Your task to perform on an android device: turn on priority inbox in the gmail app Image 0: 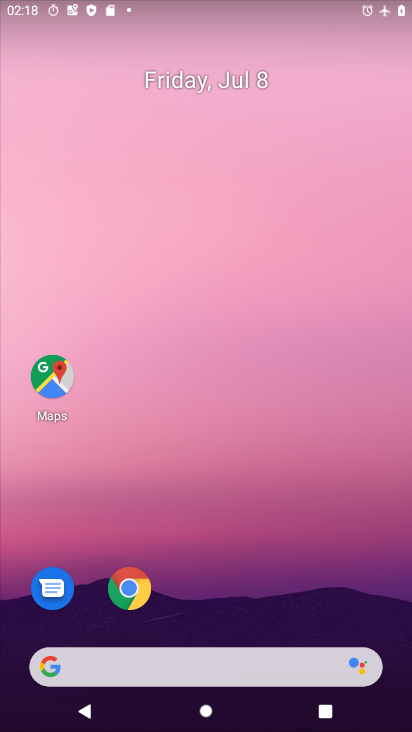
Step 0: drag from (224, 571) to (235, 179)
Your task to perform on an android device: turn on priority inbox in the gmail app Image 1: 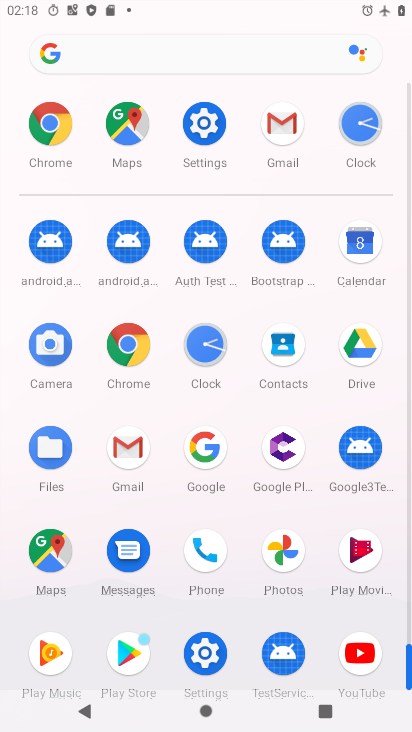
Step 1: click (269, 139)
Your task to perform on an android device: turn on priority inbox in the gmail app Image 2: 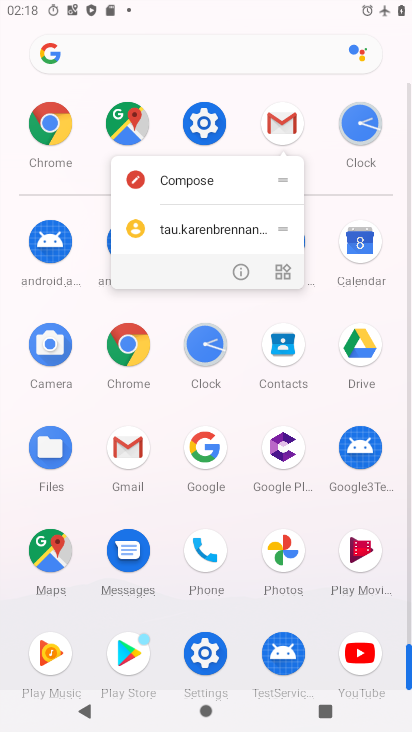
Step 2: click (235, 275)
Your task to perform on an android device: turn on priority inbox in the gmail app Image 3: 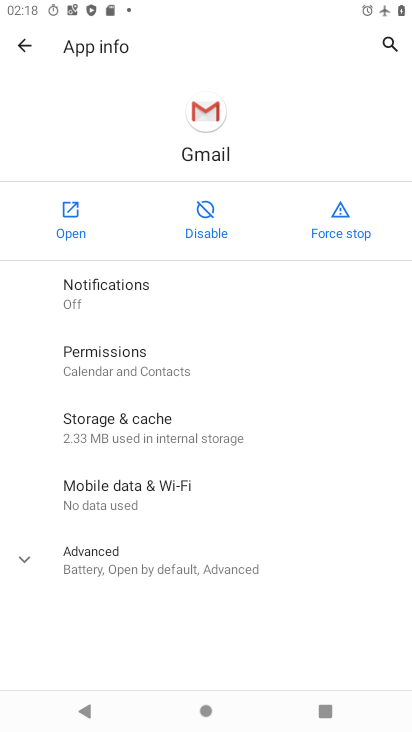
Step 3: click (60, 208)
Your task to perform on an android device: turn on priority inbox in the gmail app Image 4: 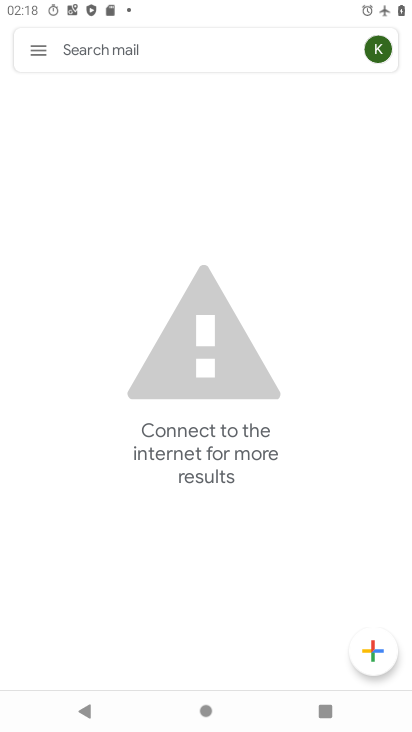
Step 4: click (14, 37)
Your task to perform on an android device: turn on priority inbox in the gmail app Image 5: 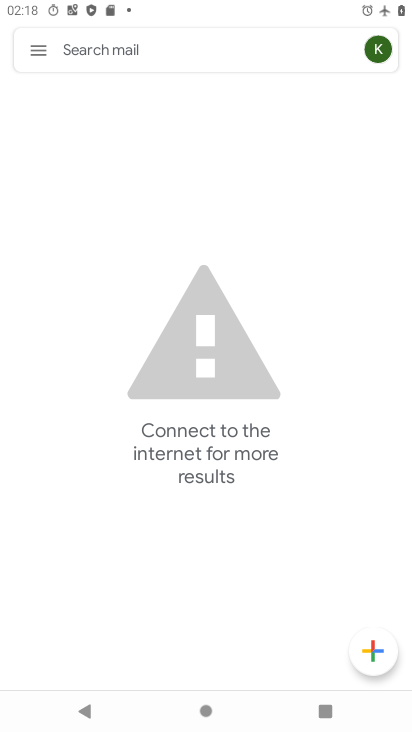
Step 5: click (35, 46)
Your task to perform on an android device: turn on priority inbox in the gmail app Image 6: 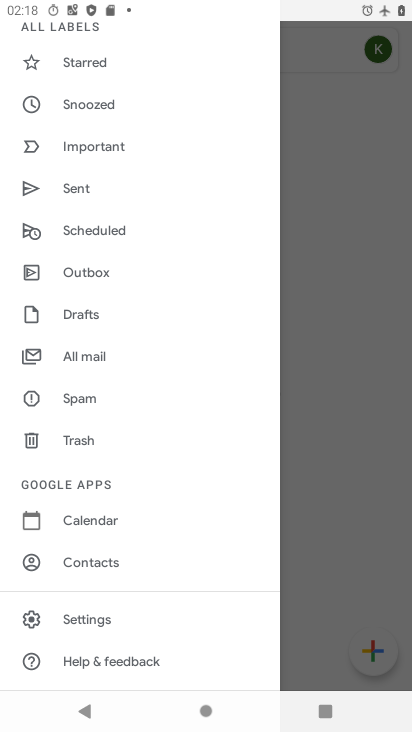
Step 6: click (99, 618)
Your task to perform on an android device: turn on priority inbox in the gmail app Image 7: 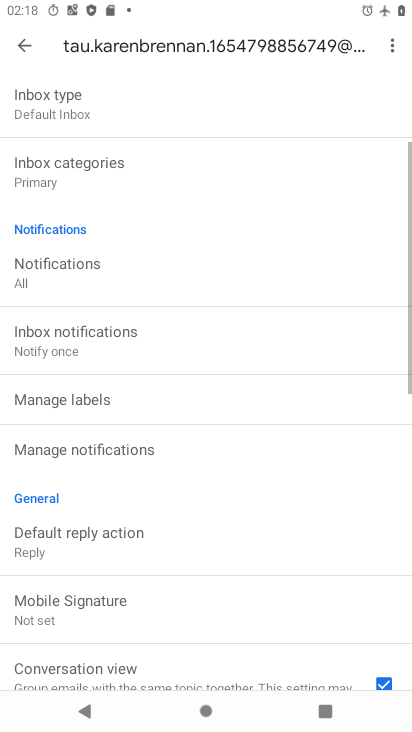
Step 7: drag from (118, 585) to (185, 399)
Your task to perform on an android device: turn on priority inbox in the gmail app Image 8: 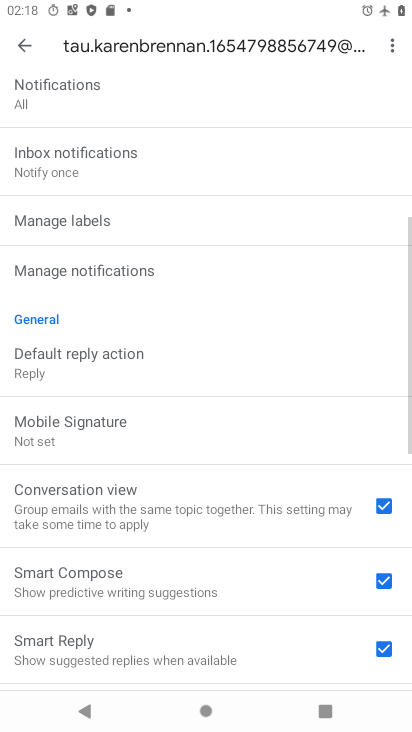
Step 8: drag from (179, 395) to (112, 635)
Your task to perform on an android device: turn on priority inbox in the gmail app Image 9: 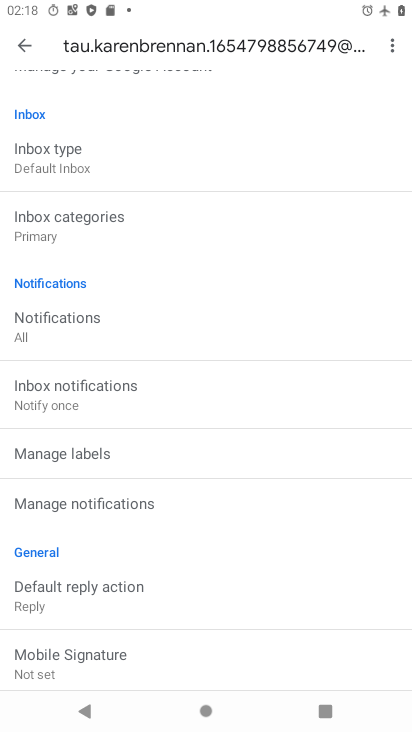
Step 9: click (62, 165)
Your task to perform on an android device: turn on priority inbox in the gmail app Image 10: 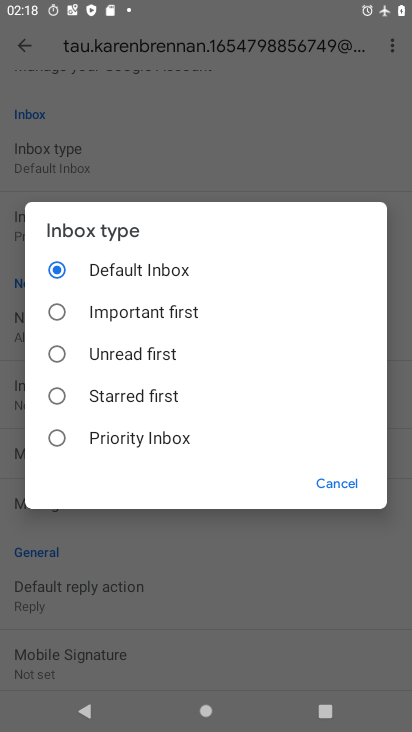
Step 10: click (72, 432)
Your task to perform on an android device: turn on priority inbox in the gmail app Image 11: 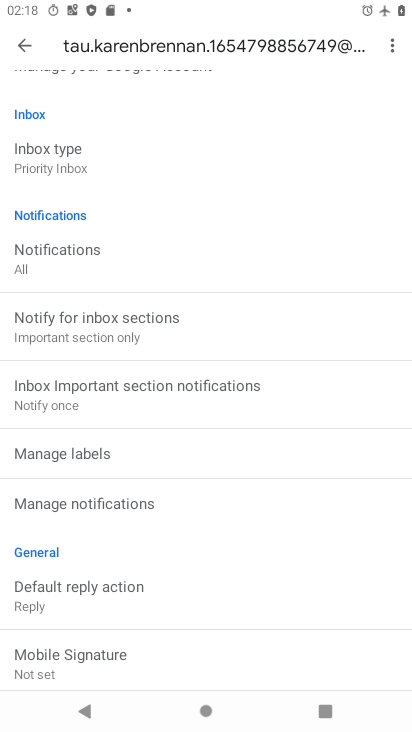
Step 11: task complete